Your task to perform on an android device: change alarm snooze length Image 0: 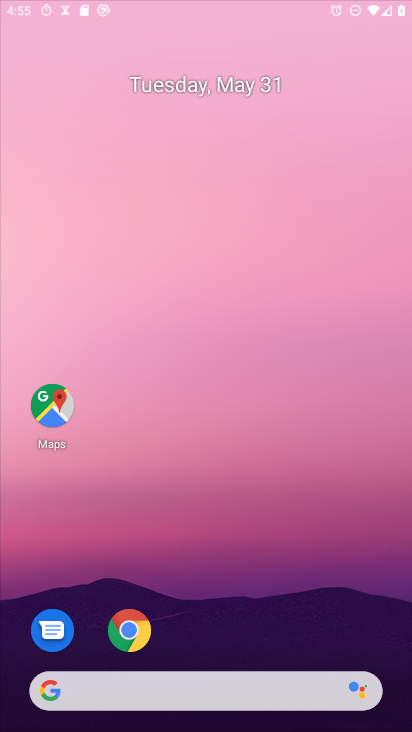
Step 0: drag from (283, 675) to (303, 7)
Your task to perform on an android device: change alarm snooze length Image 1: 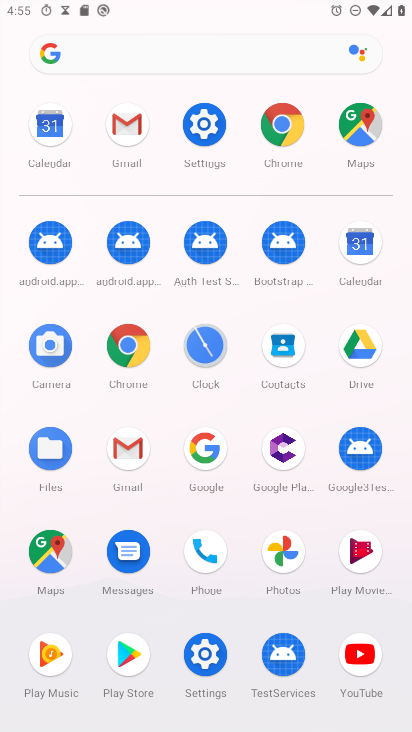
Step 1: click (369, 249)
Your task to perform on an android device: change alarm snooze length Image 2: 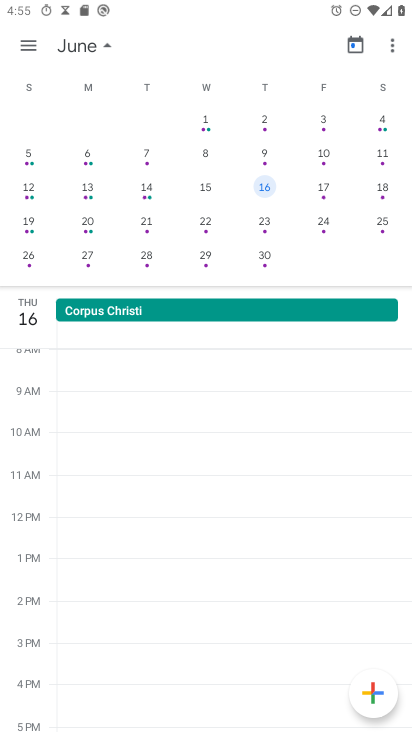
Step 2: press home button
Your task to perform on an android device: change alarm snooze length Image 3: 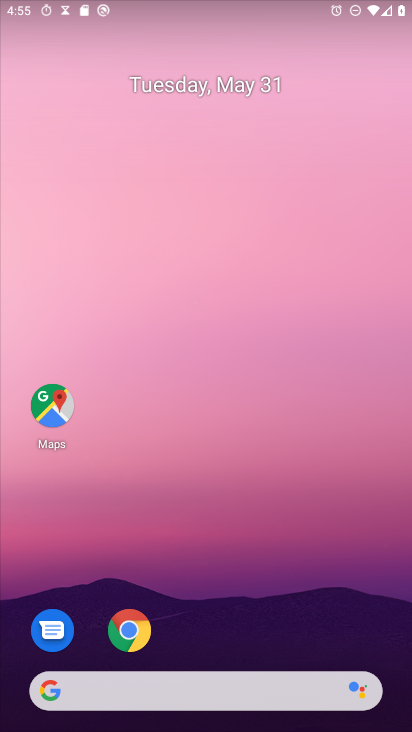
Step 3: drag from (284, 535) to (300, 50)
Your task to perform on an android device: change alarm snooze length Image 4: 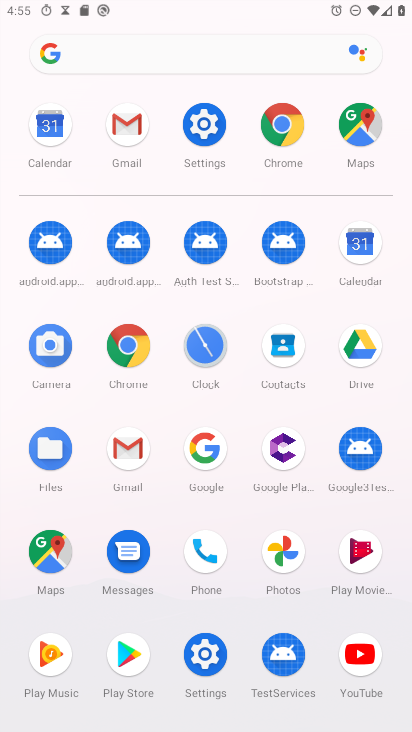
Step 4: click (208, 353)
Your task to perform on an android device: change alarm snooze length Image 5: 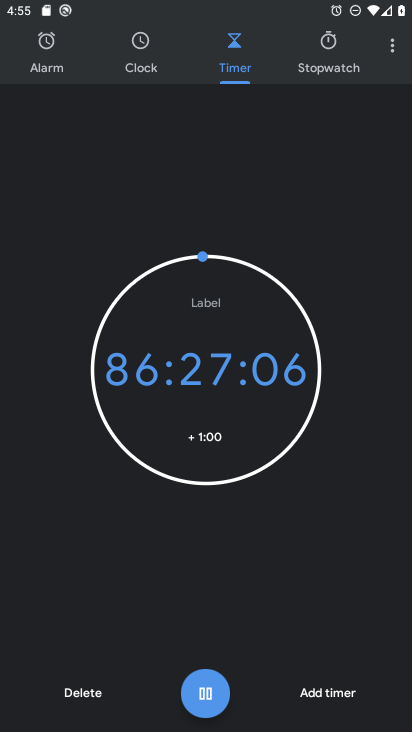
Step 5: click (398, 48)
Your task to perform on an android device: change alarm snooze length Image 6: 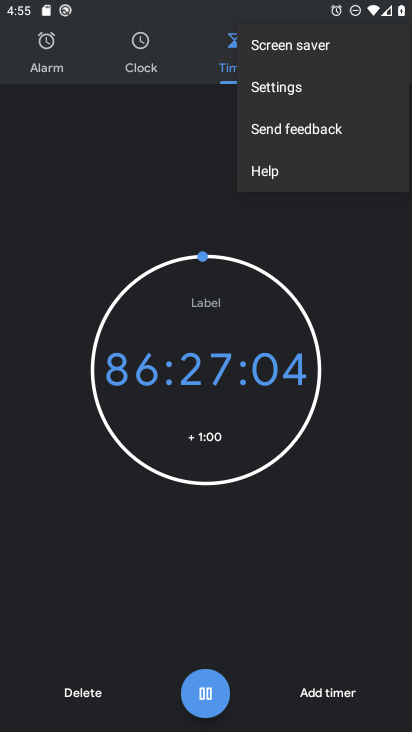
Step 6: click (283, 84)
Your task to perform on an android device: change alarm snooze length Image 7: 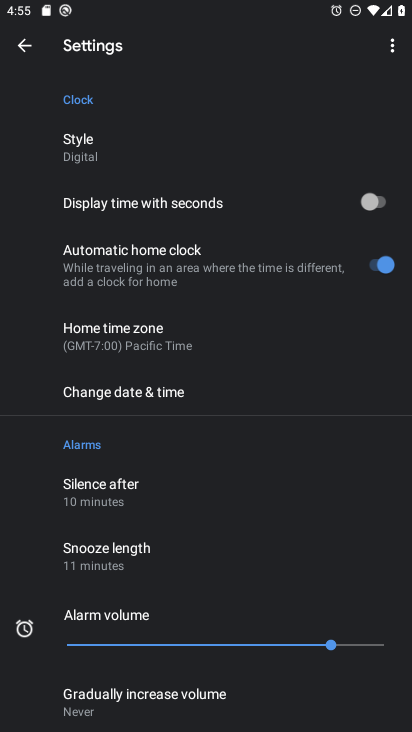
Step 7: click (193, 555)
Your task to perform on an android device: change alarm snooze length Image 8: 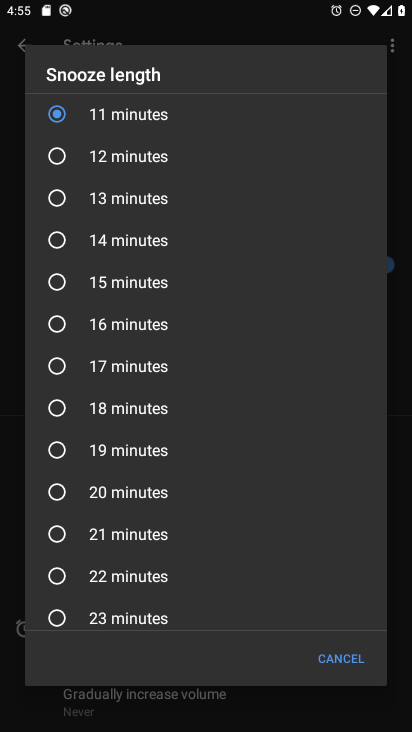
Step 8: click (57, 162)
Your task to perform on an android device: change alarm snooze length Image 9: 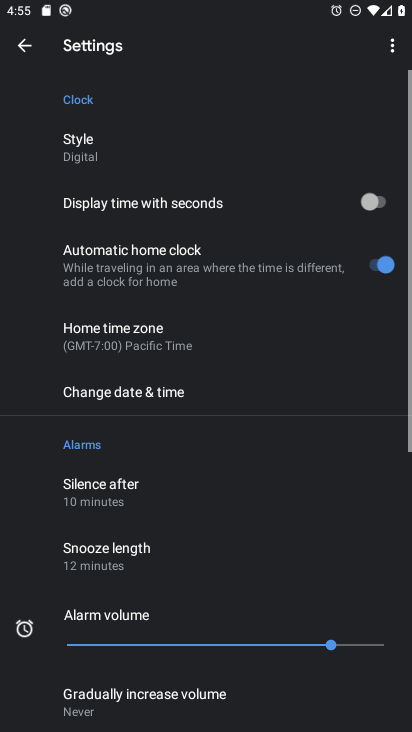
Step 9: task complete